Your task to perform on an android device: Open the map Image 0: 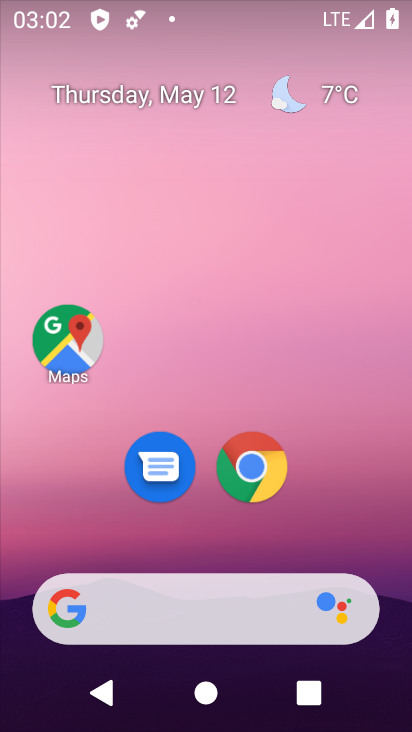
Step 0: click (54, 342)
Your task to perform on an android device: Open the map Image 1: 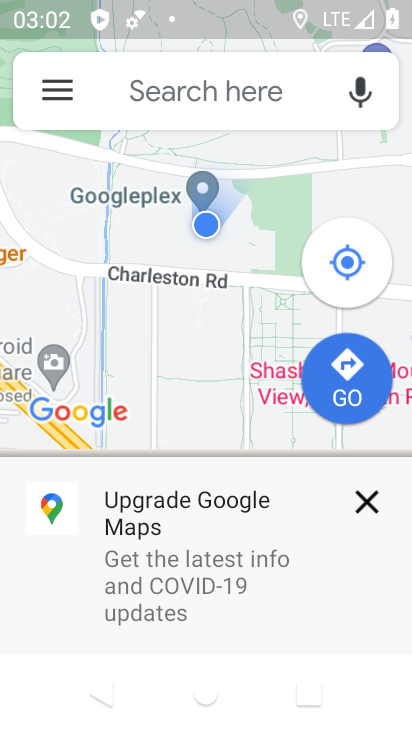
Step 1: task complete